Your task to perform on an android device: Open my contact list Image 0: 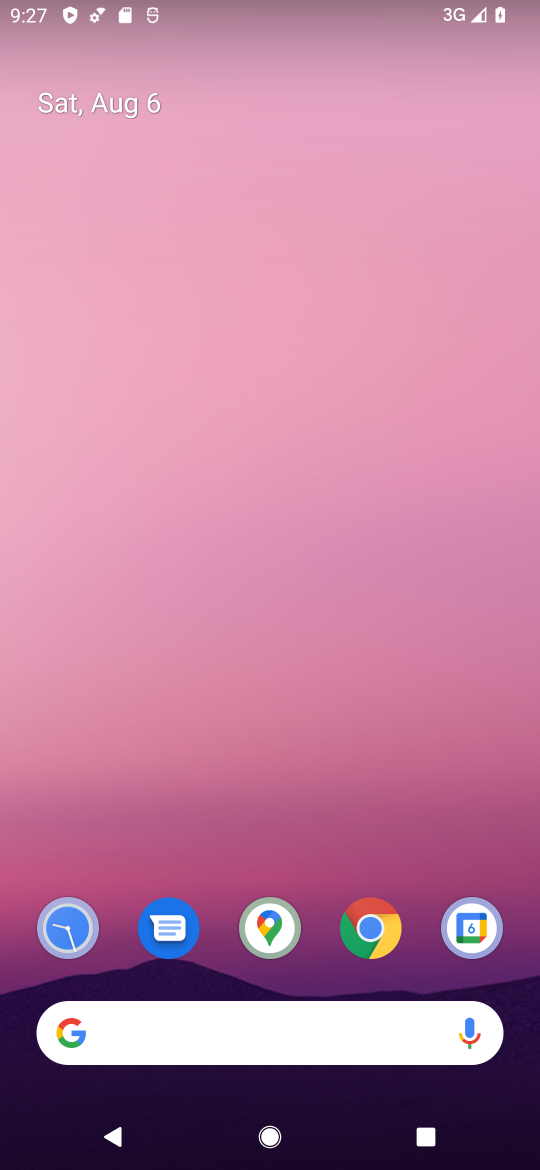
Step 0: drag from (244, 796) to (235, 141)
Your task to perform on an android device: Open my contact list Image 1: 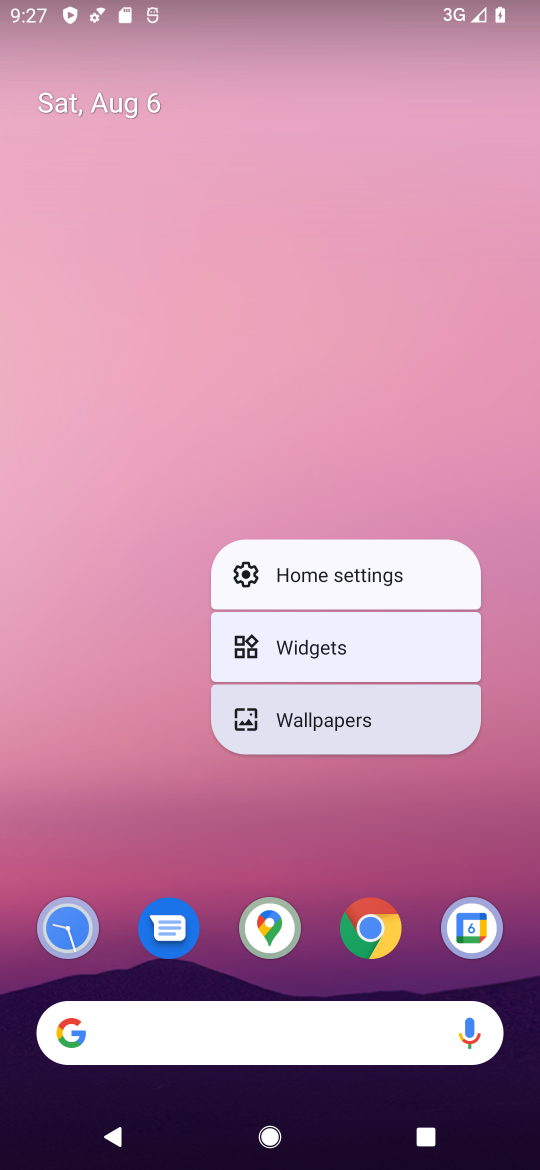
Step 1: click (245, 408)
Your task to perform on an android device: Open my contact list Image 2: 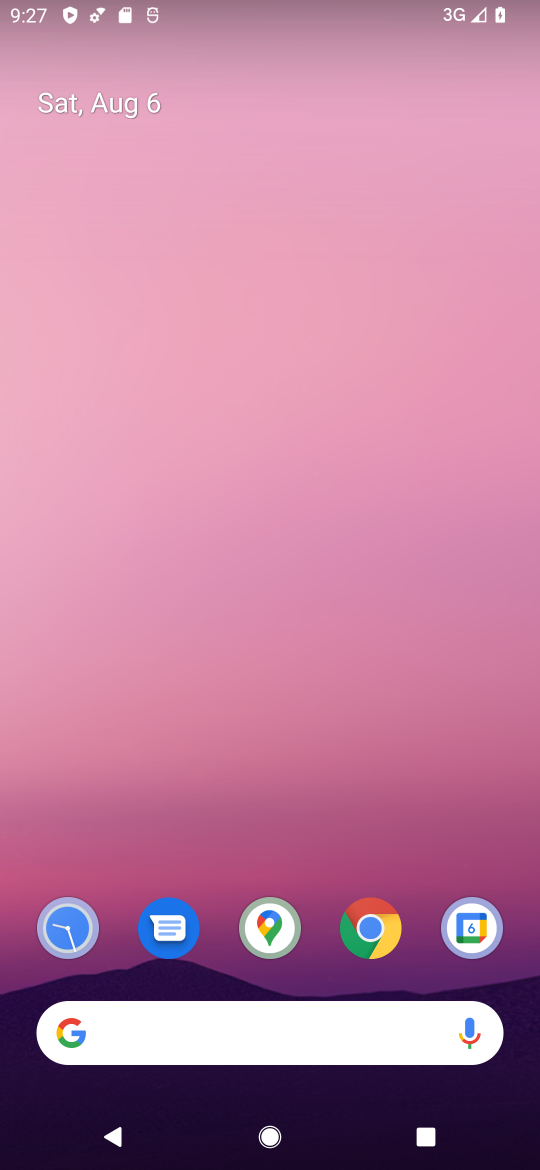
Step 2: drag from (287, 807) to (268, 261)
Your task to perform on an android device: Open my contact list Image 3: 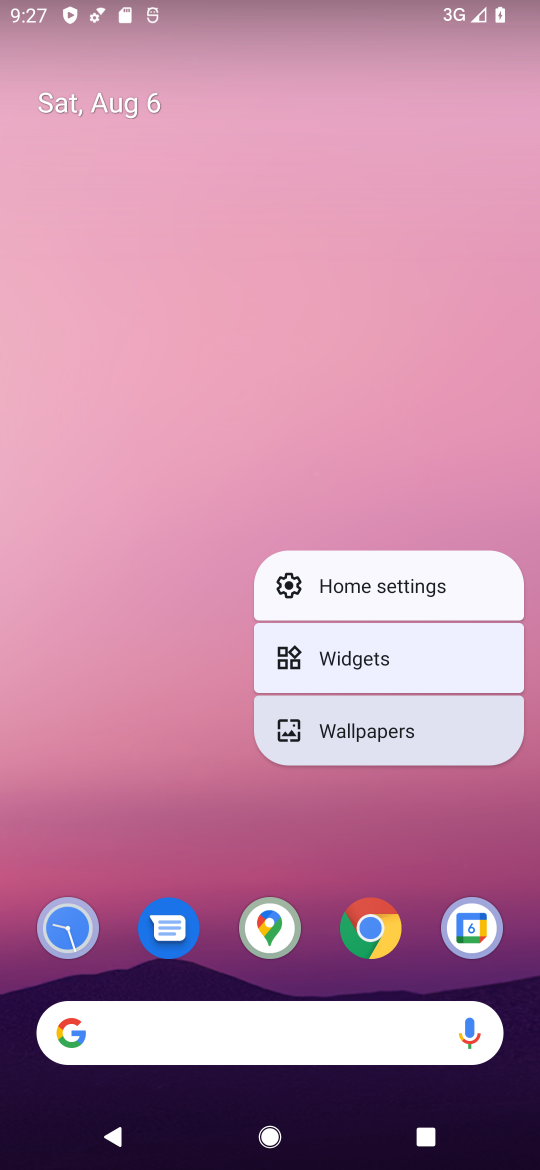
Step 3: click (268, 419)
Your task to perform on an android device: Open my contact list Image 4: 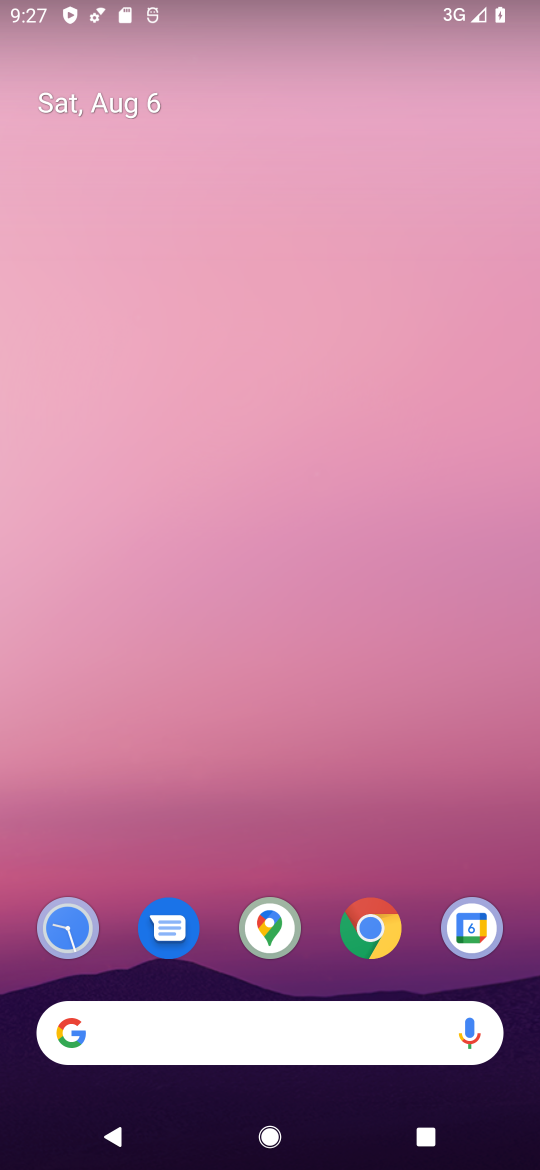
Step 4: drag from (303, 842) to (275, 94)
Your task to perform on an android device: Open my contact list Image 5: 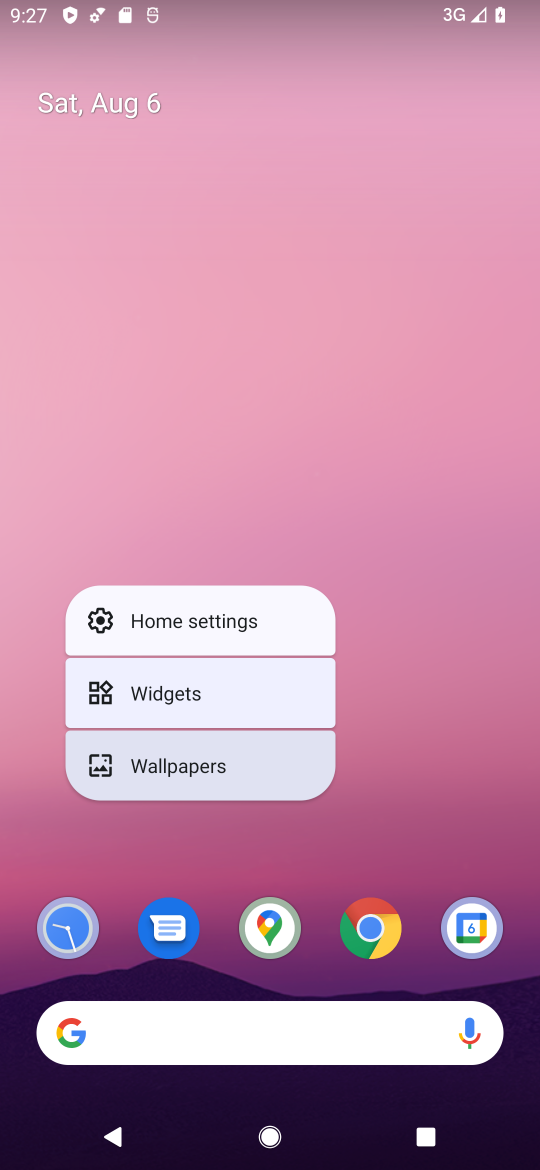
Step 5: click (275, 94)
Your task to perform on an android device: Open my contact list Image 6: 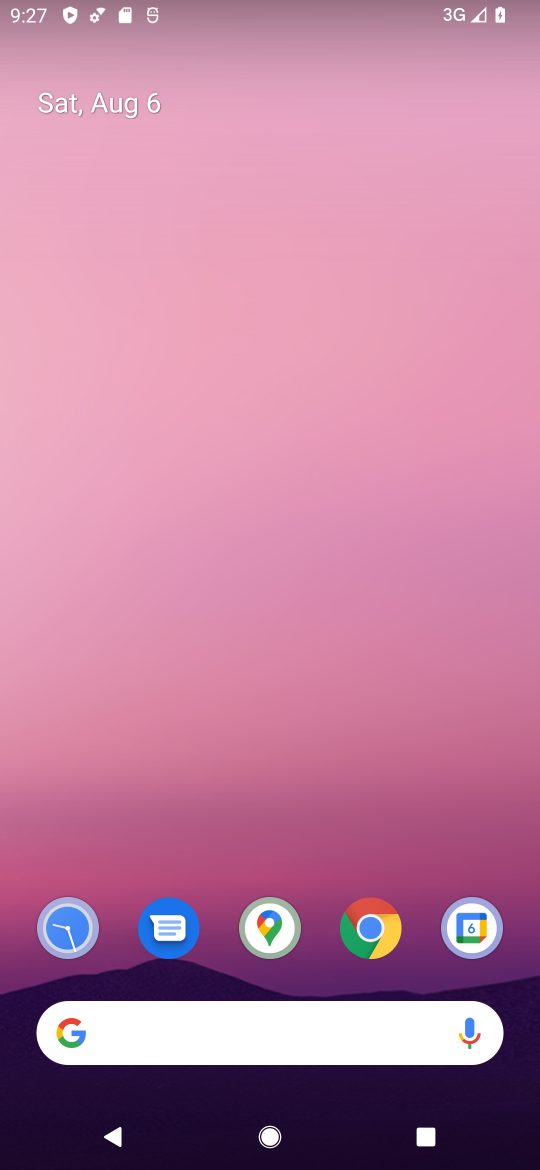
Step 6: drag from (311, 822) to (280, 176)
Your task to perform on an android device: Open my contact list Image 7: 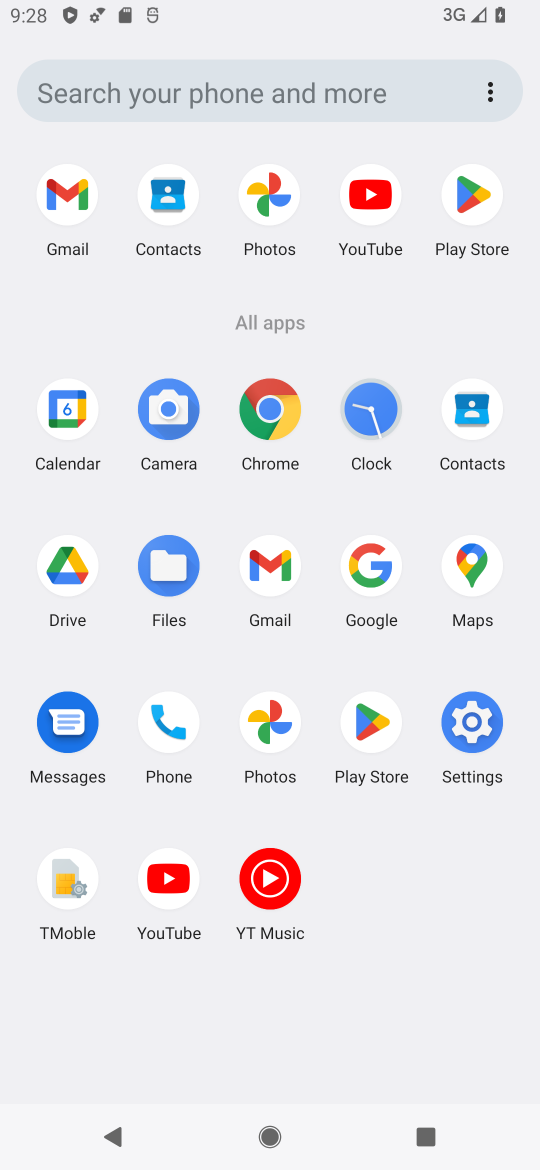
Step 7: click (470, 411)
Your task to perform on an android device: Open my contact list Image 8: 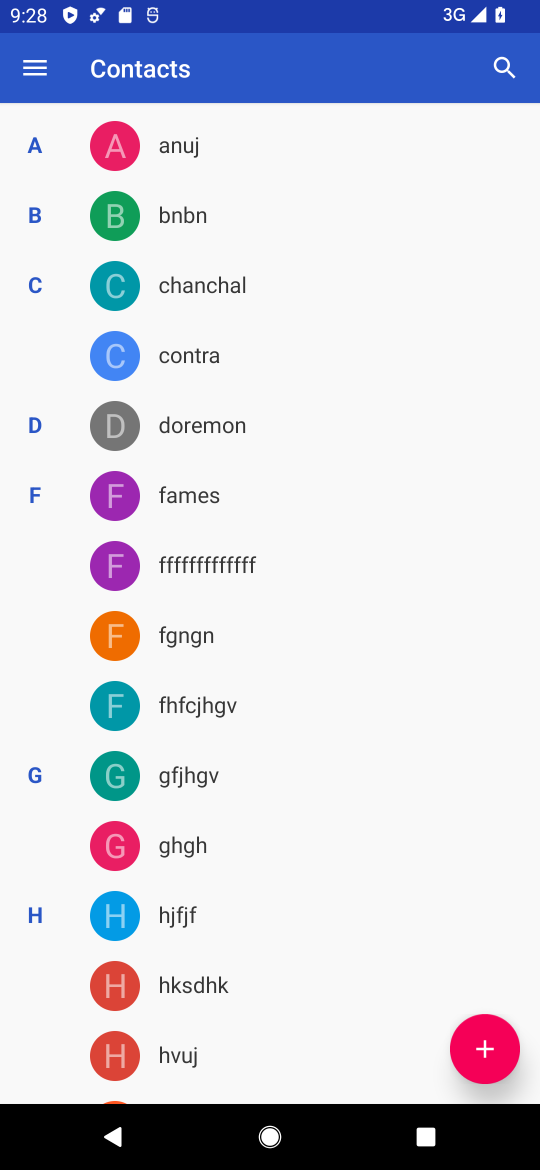
Step 8: task complete